Your task to perform on an android device: turn off notifications in google photos Image 0: 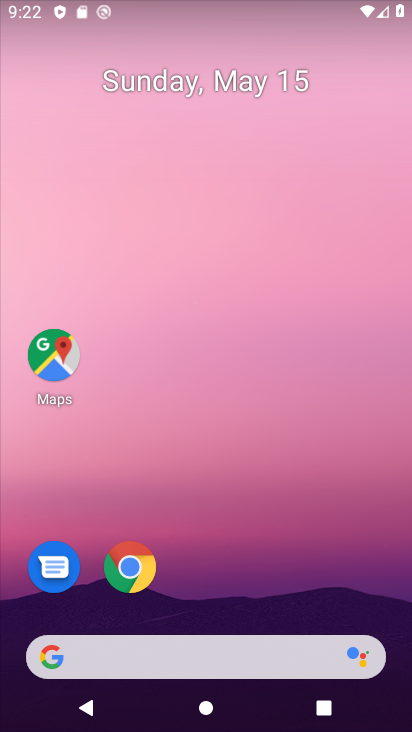
Step 0: drag from (332, 587) to (292, 99)
Your task to perform on an android device: turn off notifications in google photos Image 1: 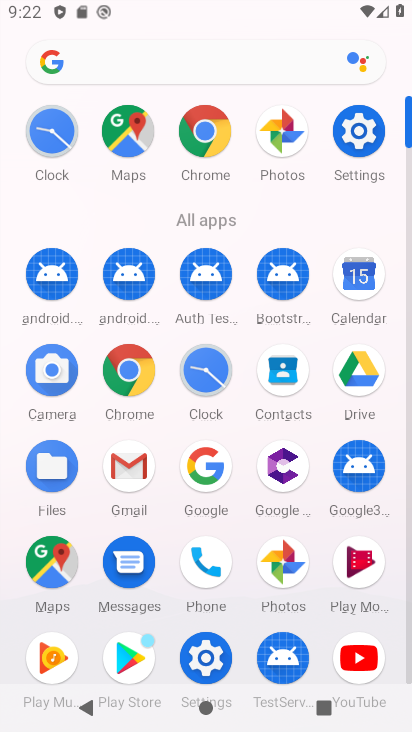
Step 1: click (286, 578)
Your task to perform on an android device: turn off notifications in google photos Image 2: 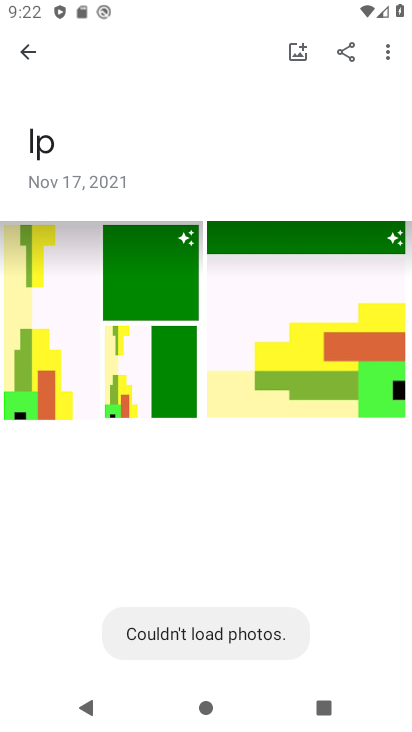
Step 2: click (21, 45)
Your task to perform on an android device: turn off notifications in google photos Image 3: 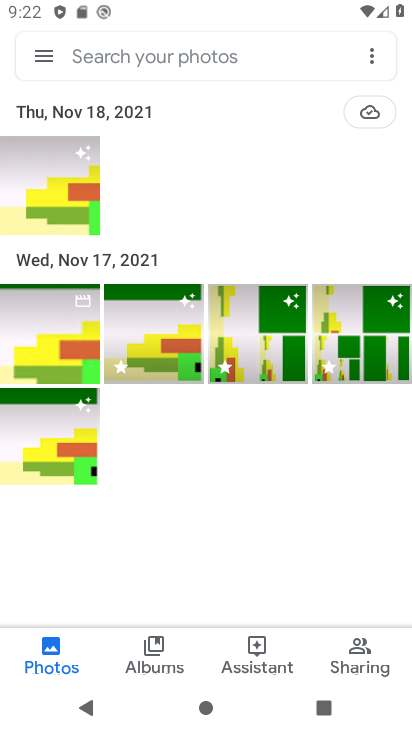
Step 3: click (36, 51)
Your task to perform on an android device: turn off notifications in google photos Image 4: 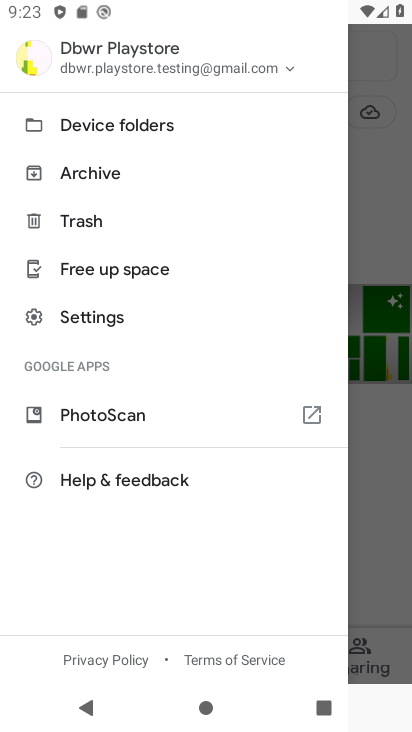
Step 4: click (114, 313)
Your task to perform on an android device: turn off notifications in google photos Image 5: 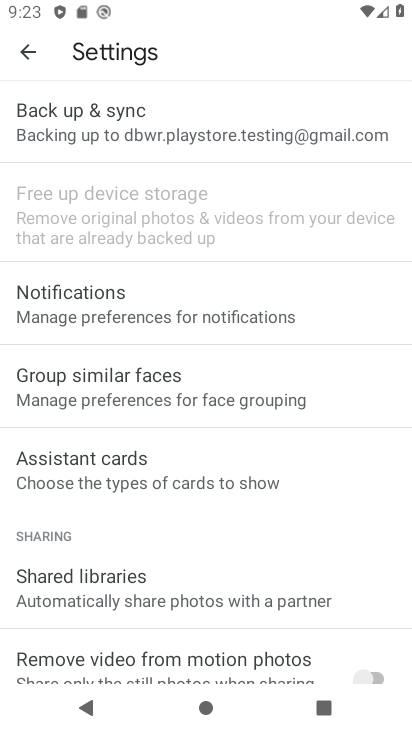
Step 5: click (129, 316)
Your task to perform on an android device: turn off notifications in google photos Image 6: 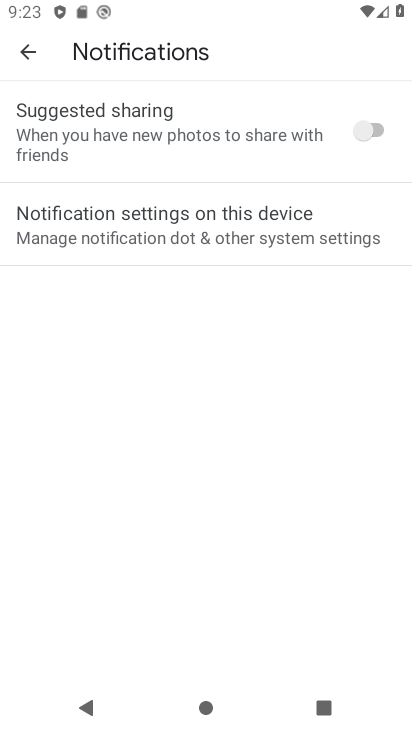
Step 6: click (29, 55)
Your task to perform on an android device: turn off notifications in google photos Image 7: 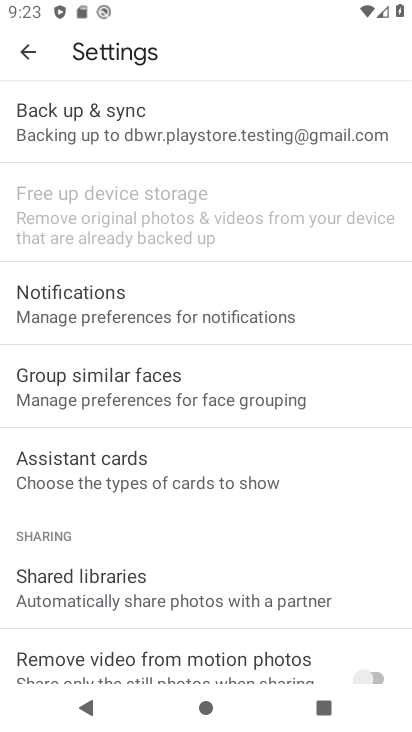
Step 7: drag from (119, 393) to (106, 227)
Your task to perform on an android device: turn off notifications in google photos Image 8: 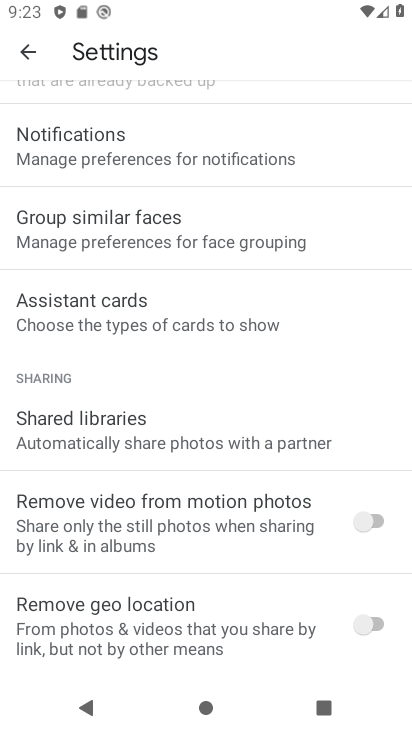
Step 8: click (96, 124)
Your task to perform on an android device: turn off notifications in google photos Image 9: 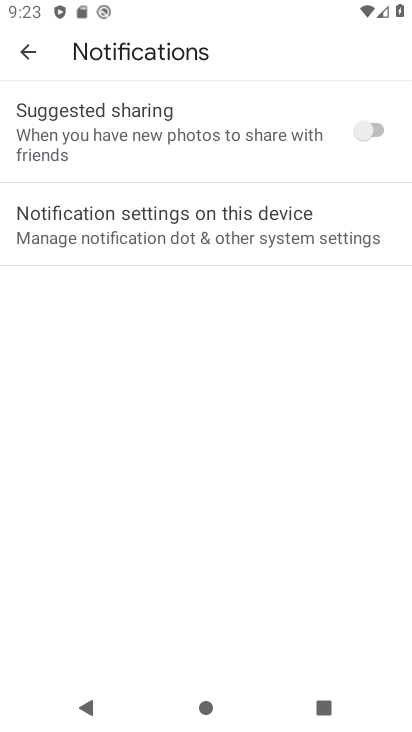
Step 9: click (233, 221)
Your task to perform on an android device: turn off notifications in google photos Image 10: 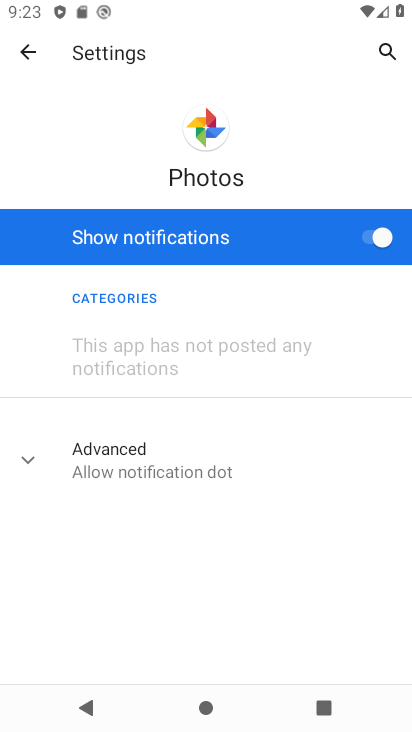
Step 10: click (384, 242)
Your task to perform on an android device: turn off notifications in google photos Image 11: 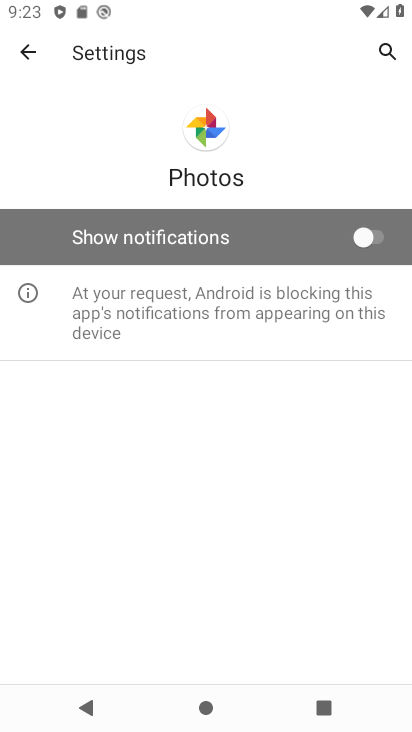
Step 11: task complete